Your task to perform on an android device: open app "Adobe Acrobat Reader: Edit PDF" (install if not already installed) Image 0: 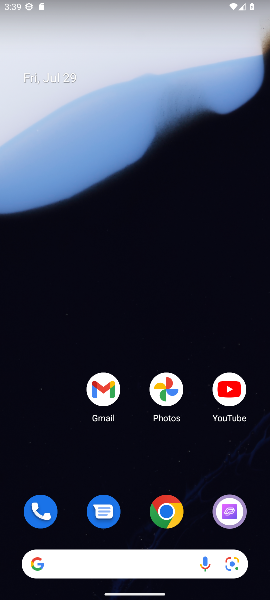
Step 0: drag from (21, 561) to (145, 244)
Your task to perform on an android device: open app "Adobe Acrobat Reader: Edit PDF" (install if not already installed) Image 1: 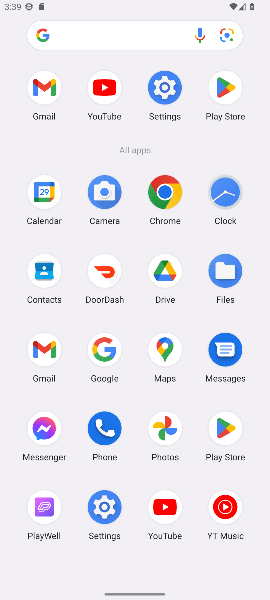
Step 1: drag from (21, 564) to (174, 124)
Your task to perform on an android device: open app "Adobe Acrobat Reader: Edit PDF" (install if not already installed) Image 2: 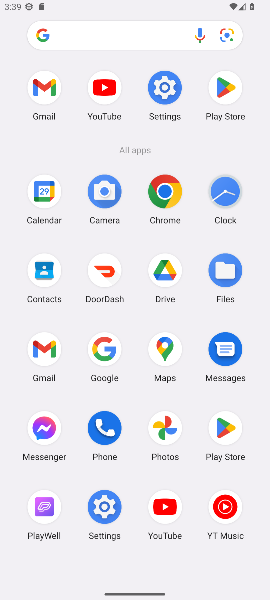
Step 2: drag from (80, 294) to (102, 41)
Your task to perform on an android device: open app "Adobe Acrobat Reader: Edit PDF" (install if not already installed) Image 3: 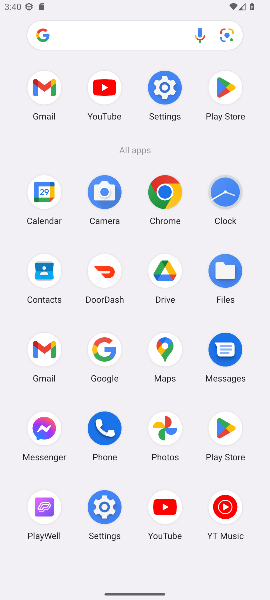
Step 3: click (222, 437)
Your task to perform on an android device: open app "Adobe Acrobat Reader: Edit PDF" (install if not already installed) Image 4: 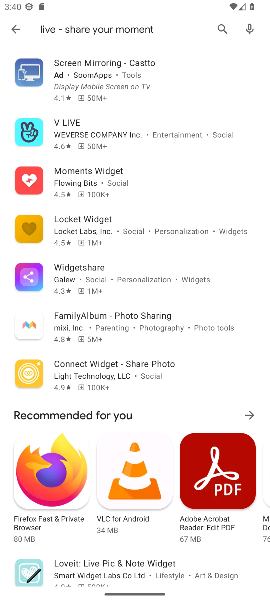
Step 4: click (15, 28)
Your task to perform on an android device: open app "Adobe Acrobat Reader: Edit PDF" (install if not already installed) Image 5: 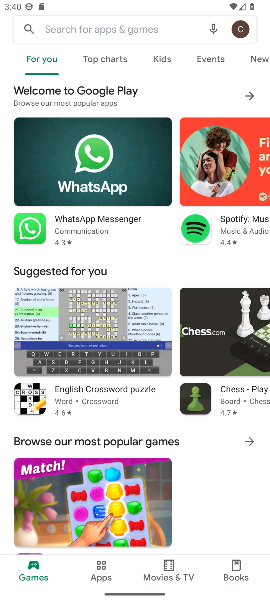
Step 5: click (51, 32)
Your task to perform on an android device: open app "Adobe Acrobat Reader: Edit PDF" (install if not already installed) Image 6: 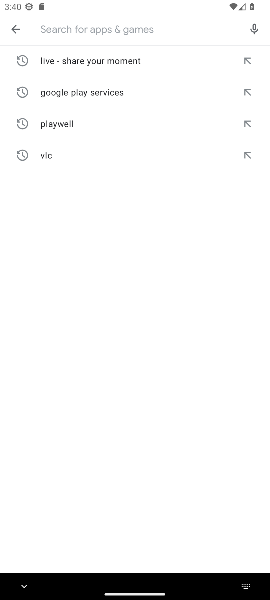
Step 6: type "Adobe Acrobat Reader: Edit PDF"
Your task to perform on an android device: open app "Adobe Acrobat Reader: Edit PDF" (install if not already installed) Image 7: 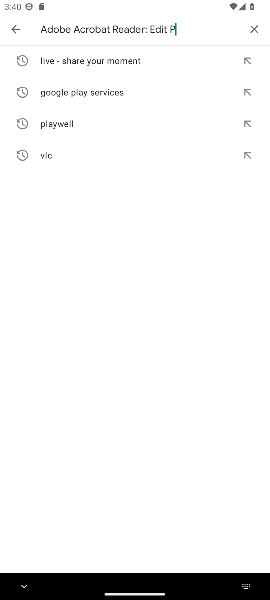
Step 7: type ""
Your task to perform on an android device: open app "Adobe Acrobat Reader: Edit PDF" (install if not already installed) Image 8: 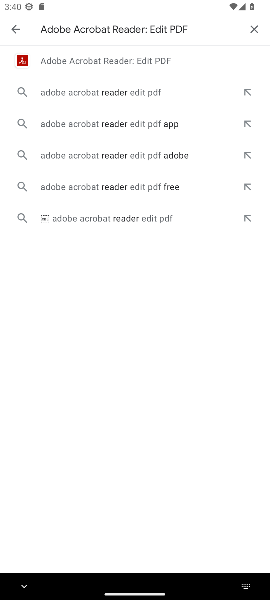
Step 8: click (127, 65)
Your task to perform on an android device: open app "Adobe Acrobat Reader: Edit PDF" (install if not already installed) Image 9: 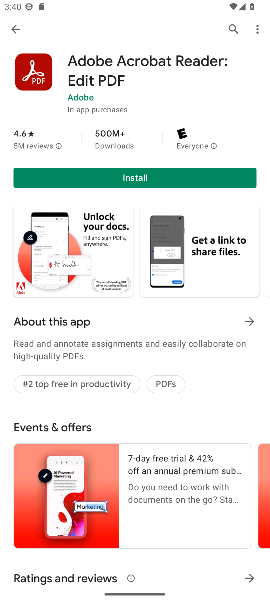
Step 9: click (113, 173)
Your task to perform on an android device: open app "Adobe Acrobat Reader: Edit PDF" (install if not already installed) Image 10: 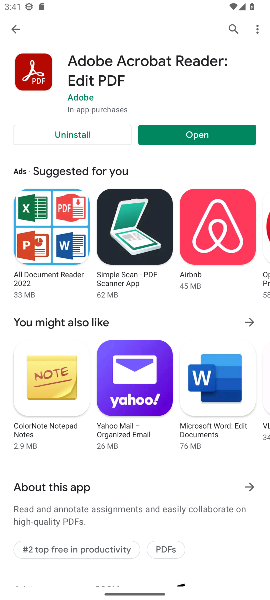
Step 10: click (207, 131)
Your task to perform on an android device: open app "Adobe Acrobat Reader: Edit PDF" (install if not already installed) Image 11: 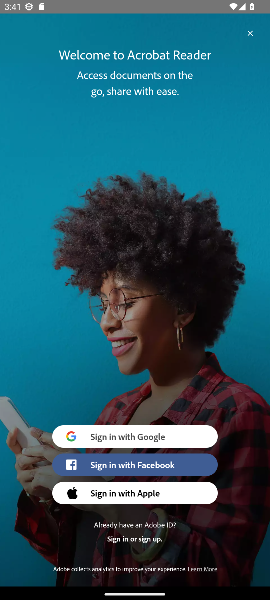
Step 11: task complete